Your task to perform on an android device: toggle pop-ups in chrome Image 0: 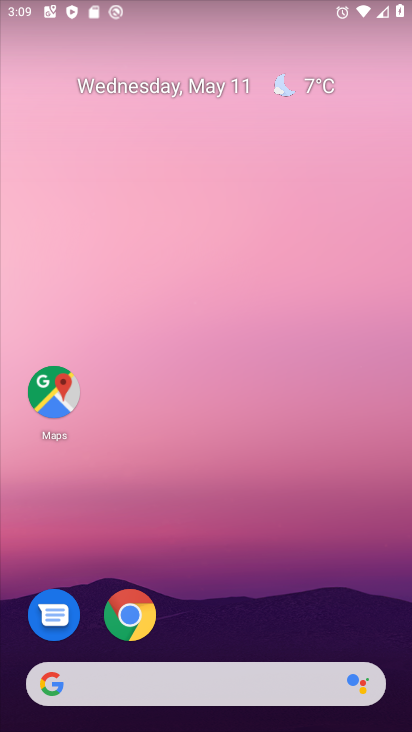
Step 0: click (132, 608)
Your task to perform on an android device: toggle pop-ups in chrome Image 1: 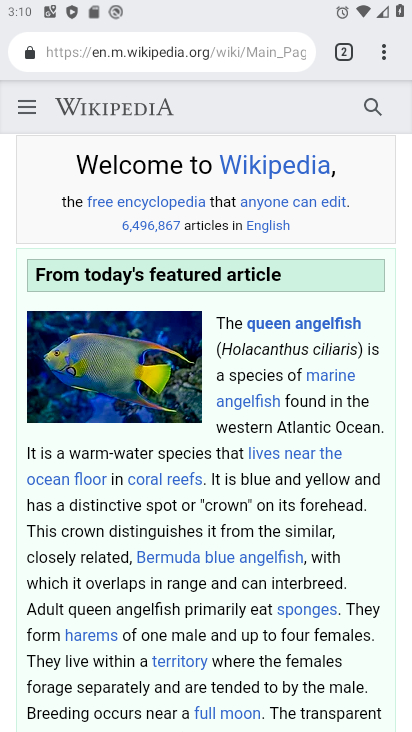
Step 1: drag from (384, 49) to (193, 633)
Your task to perform on an android device: toggle pop-ups in chrome Image 2: 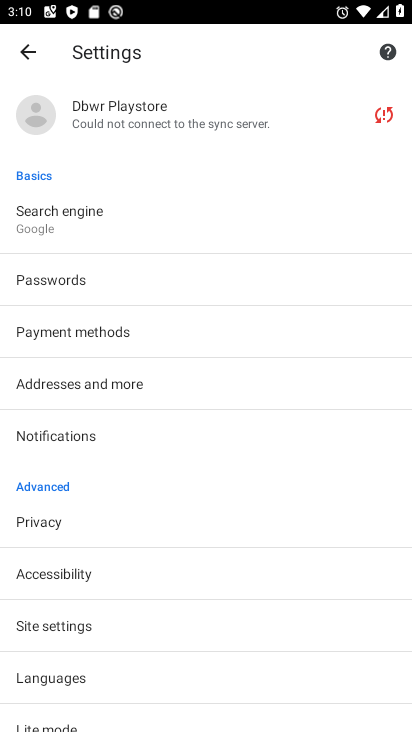
Step 2: click (127, 622)
Your task to perform on an android device: toggle pop-ups in chrome Image 3: 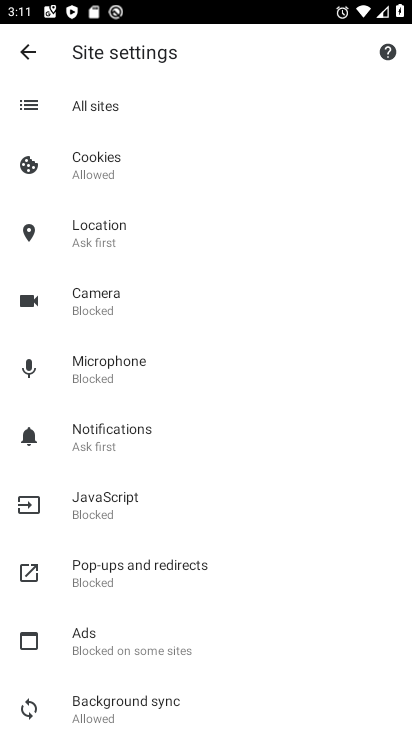
Step 3: click (160, 561)
Your task to perform on an android device: toggle pop-ups in chrome Image 4: 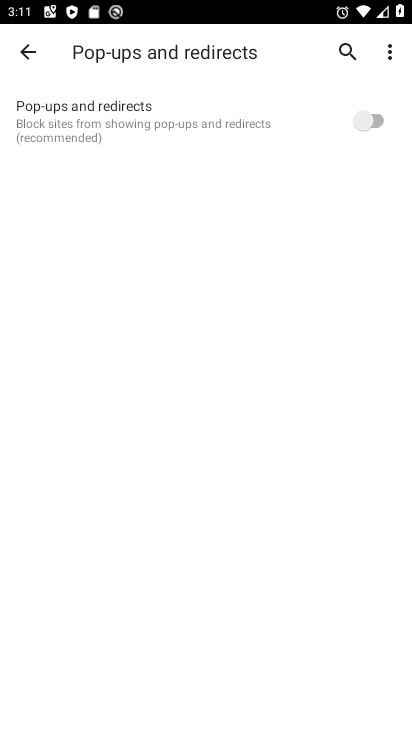
Step 4: click (358, 110)
Your task to perform on an android device: toggle pop-ups in chrome Image 5: 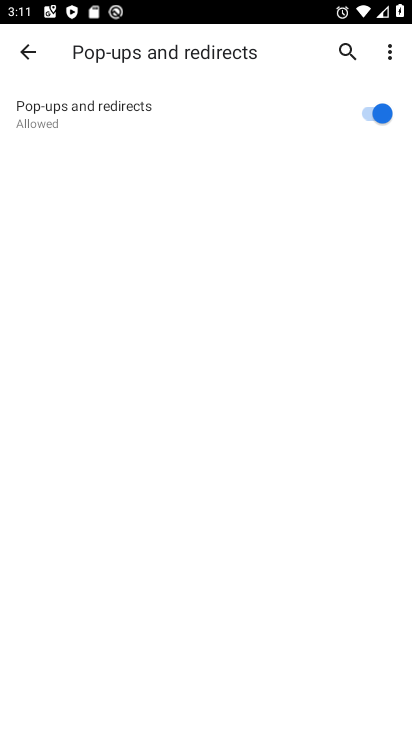
Step 5: task complete